Your task to perform on an android device: Toggle the flashlight Image 0: 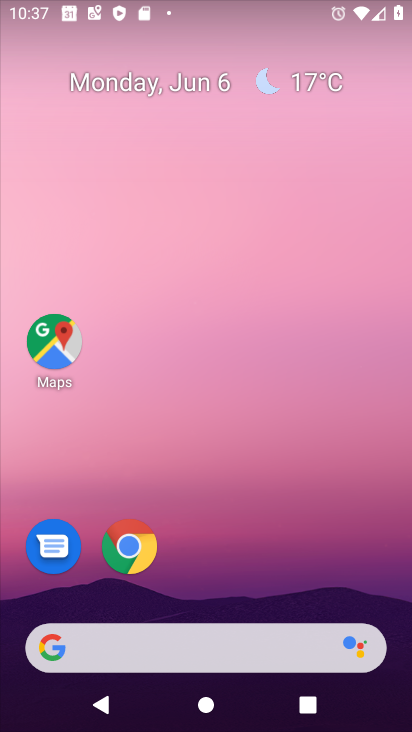
Step 0: drag from (209, 579) to (332, 55)
Your task to perform on an android device: Toggle the flashlight Image 1: 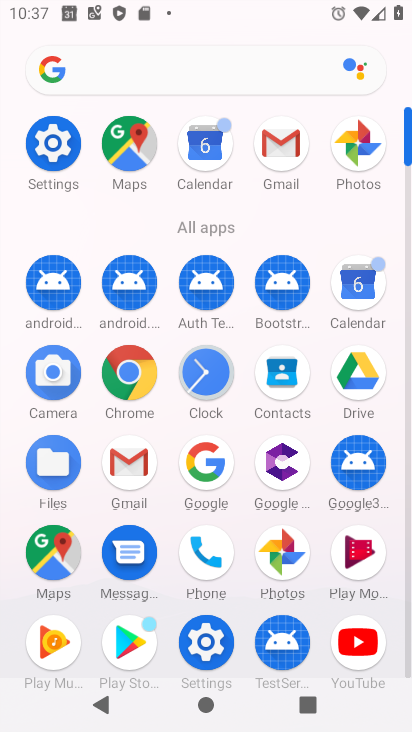
Step 1: click (54, 159)
Your task to perform on an android device: Toggle the flashlight Image 2: 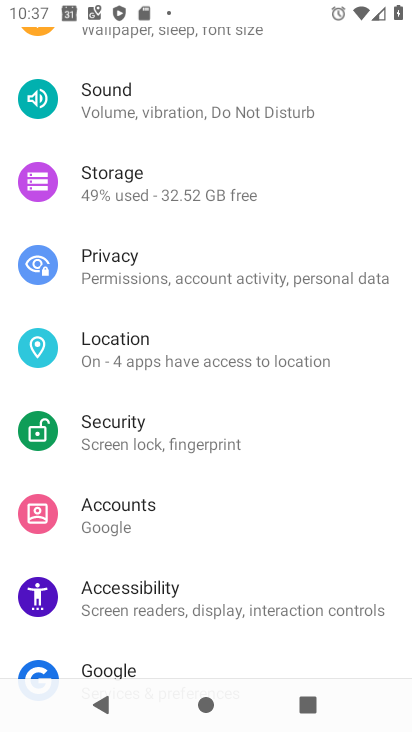
Step 2: drag from (169, 116) to (147, 722)
Your task to perform on an android device: Toggle the flashlight Image 3: 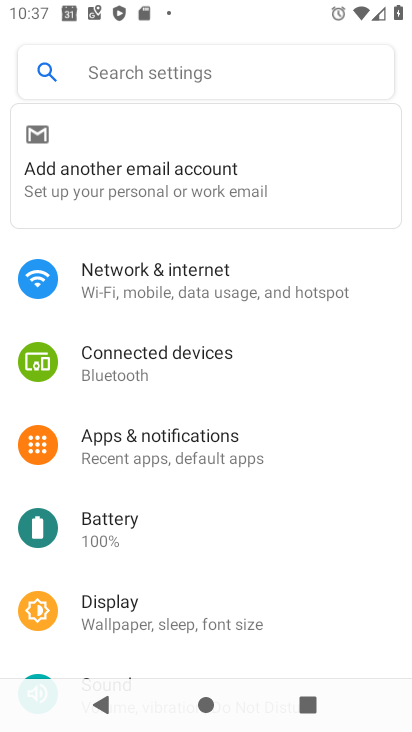
Step 3: click (167, 74)
Your task to perform on an android device: Toggle the flashlight Image 4: 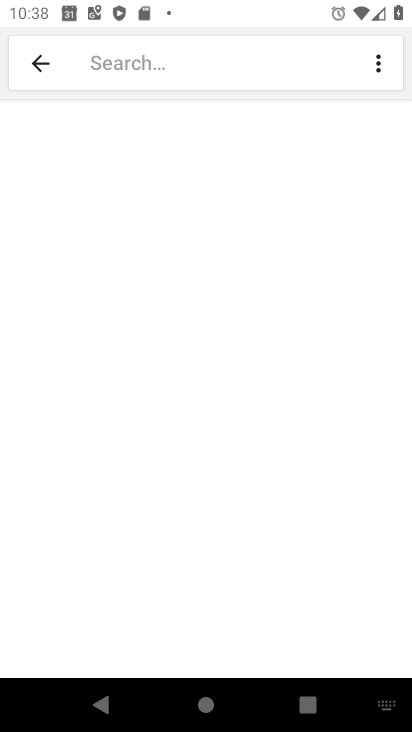
Step 4: type "flashlight"
Your task to perform on an android device: Toggle the flashlight Image 5: 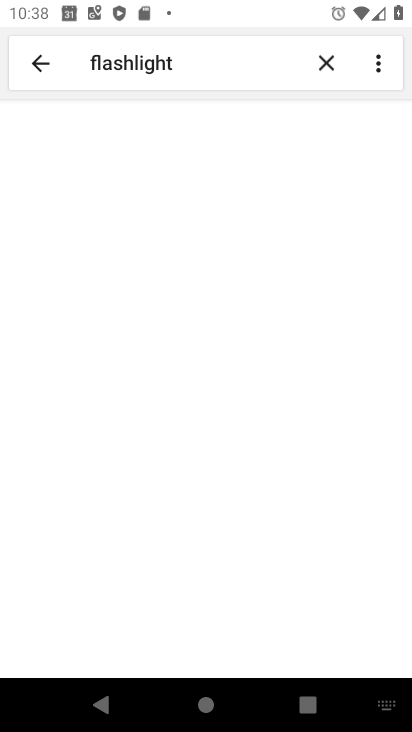
Step 5: click (167, 138)
Your task to perform on an android device: Toggle the flashlight Image 6: 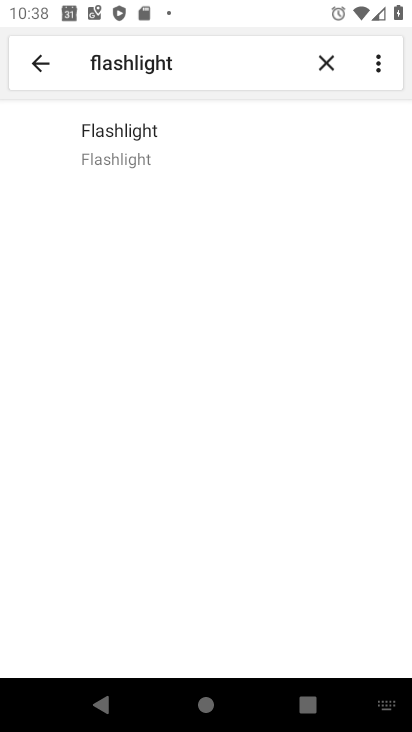
Step 6: click (129, 148)
Your task to perform on an android device: Toggle the flashlight Image 7: 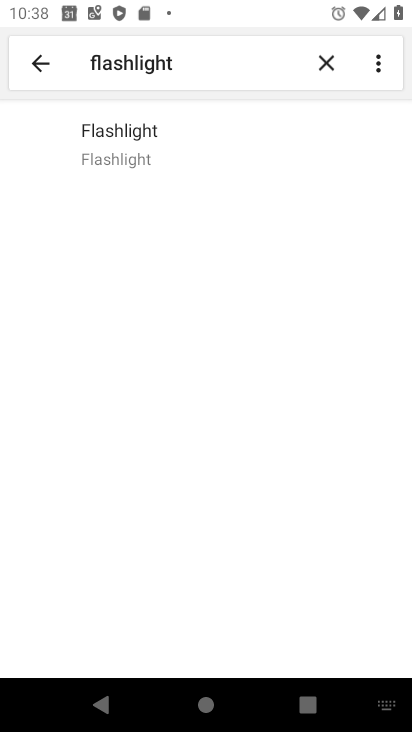
Step 7: click (129, 148)
Your task to perform on an android device: Toggle the flashlight Image 8: 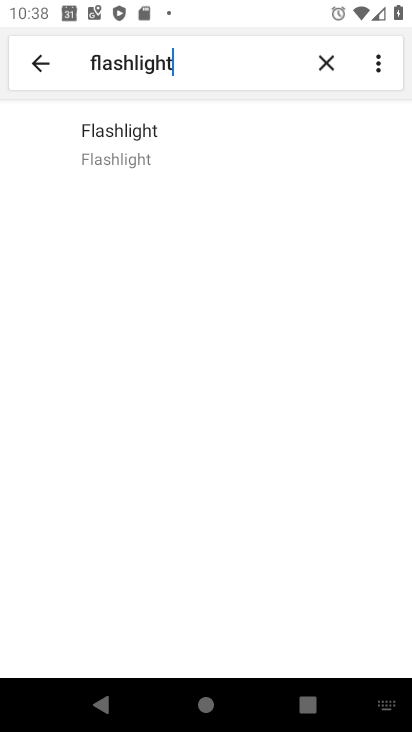
Step 8: task complete